Your task to perform on an android device: Open location settings Image 0: 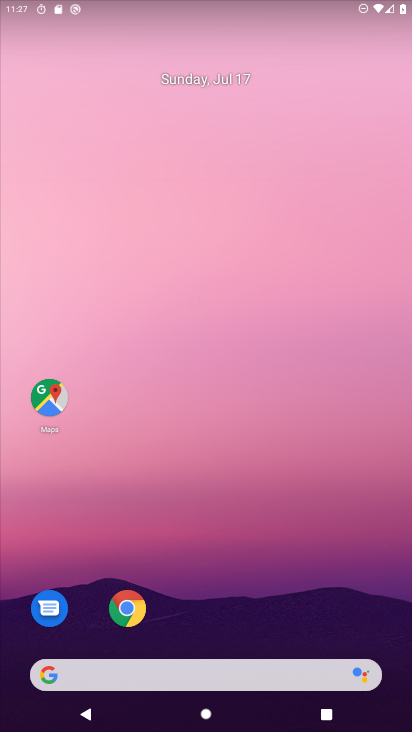
Step 0: drag from (264, 588) to (240, 13)
Your task to perform on an android device: Open location settings Image 1: 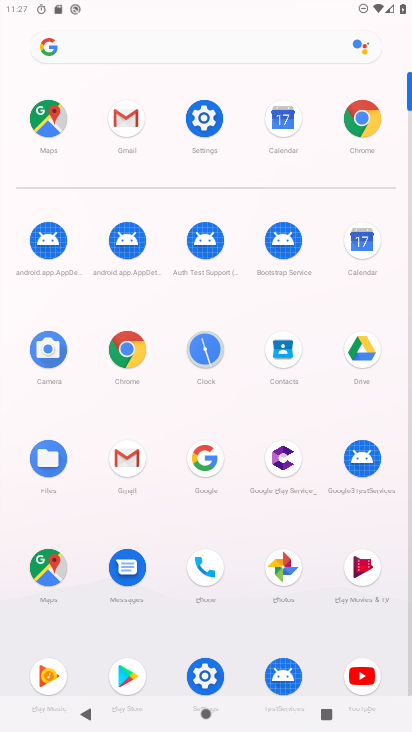
Step 1: click (207, 672)
Your task to perform on an android device: Open location settings Image 2: 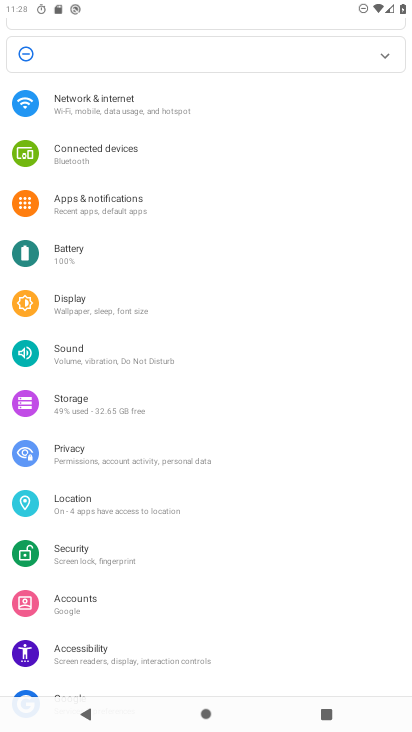
Step 2: click (185, 506)
Your task to perform on an android device: Open location settings Image 3: 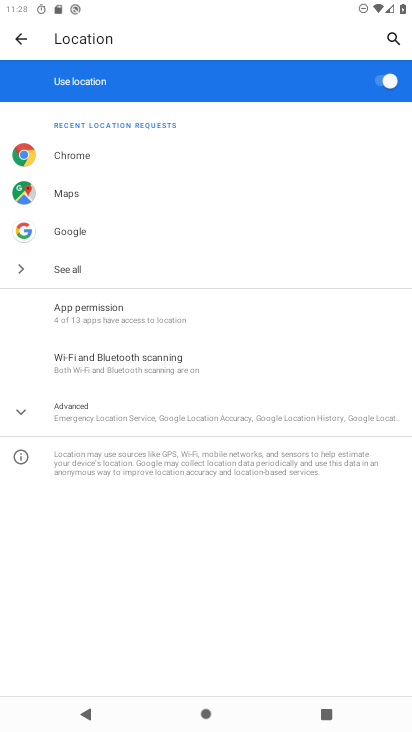
Step 3: task complete